Your task to perform on an android device: turn pop-ups on in chrome Image 0: 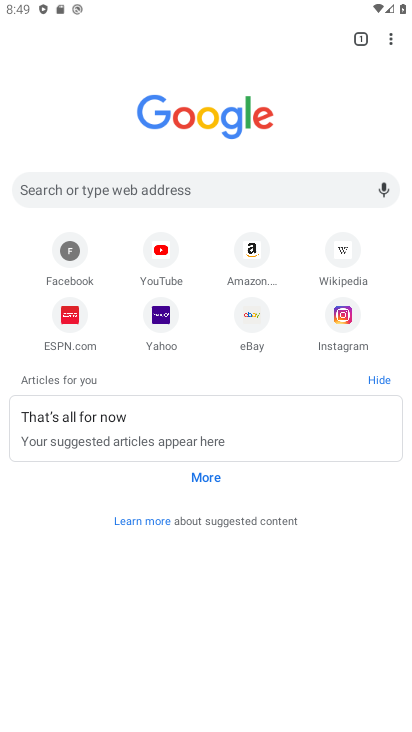
Step 0: click (391, 36)
Your task to perform on an android device: turn pop-ups on in chrome Image 1: 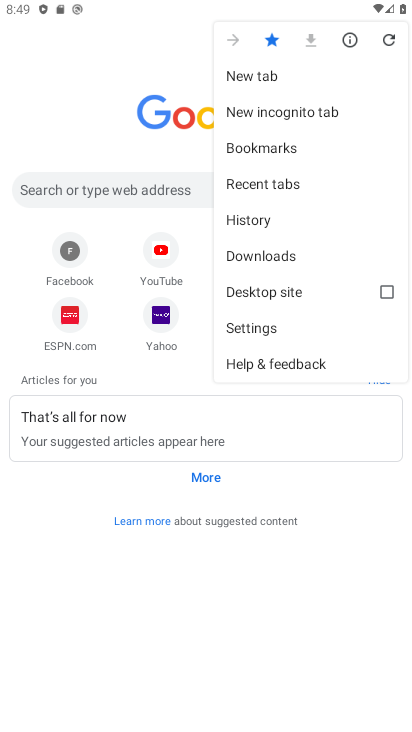
Step 1: click (273, 324)
Your task to perform on an android device: turn pop-ups on in chrome Image 2: 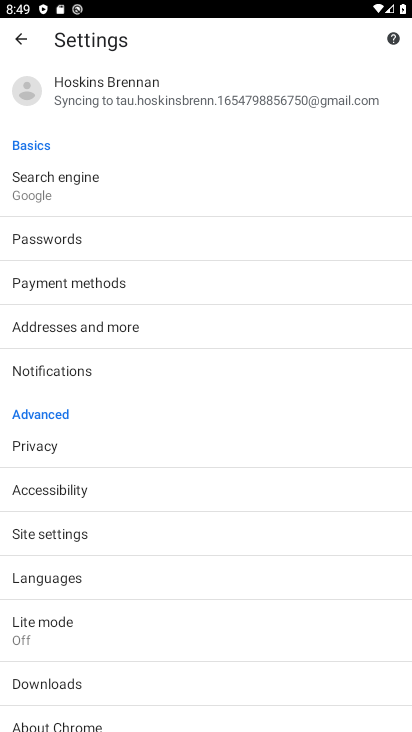
Step 2: click (105, 536)
Your task to perform on an android device: turn pop-ups on in chrome Image 3: 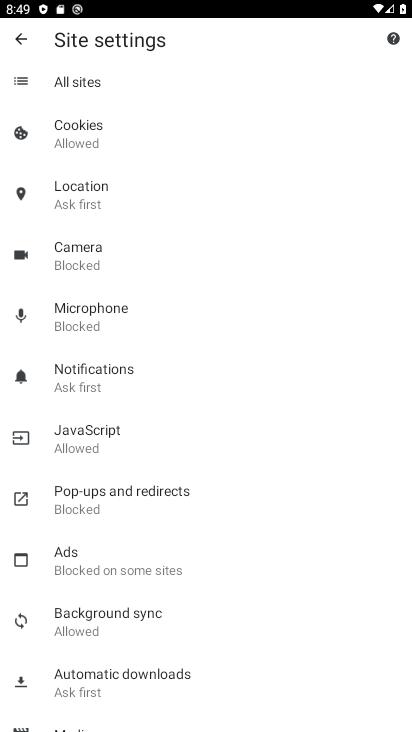
Step 3: click (159, 495)
Your task to perform on an android device: turn pop-ups on in chrome Image 4: 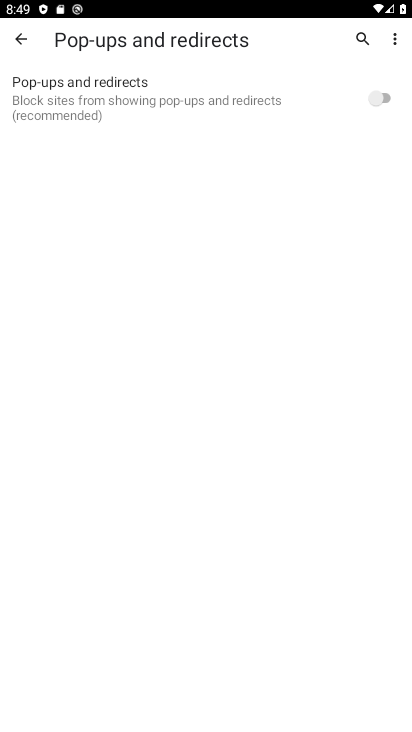
Step 4: click (383, 96)
Your task to perform on an android device: turn pop-ups on in chrome Image 5: 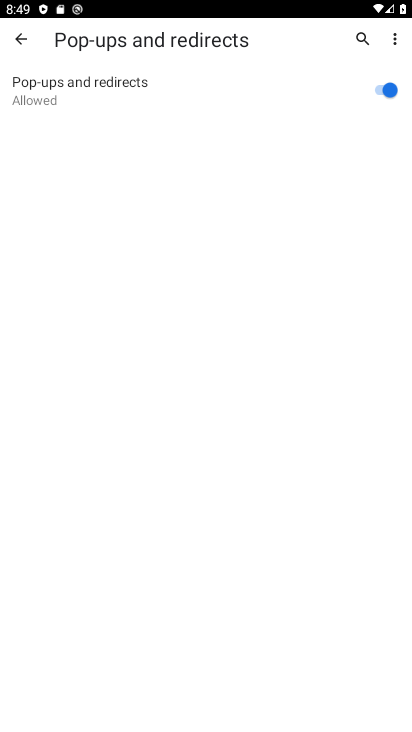
Step 5: task complete